Your task to perform on an android device: Open calendar and show me the third week of next month Image 0: 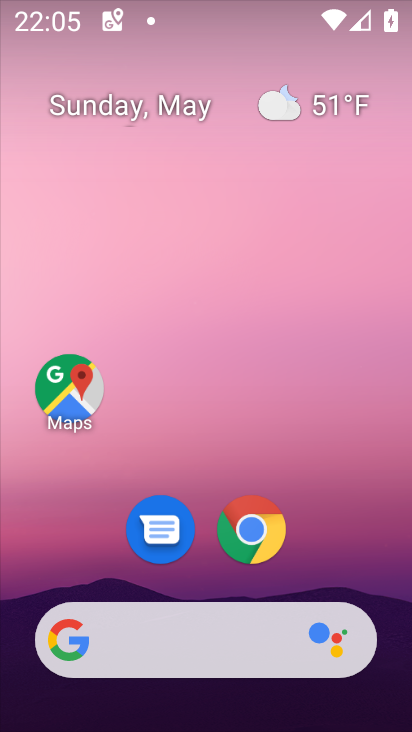
Step 0: click (358, 0)
Your task to perform on an android device: Open calendar and show me the third week of next month Image 1: 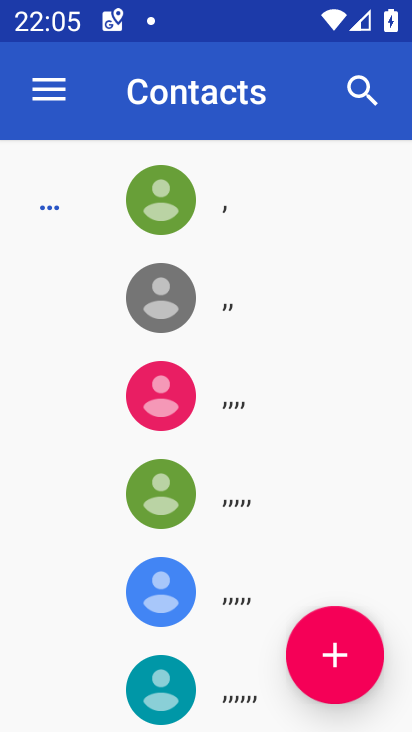
Step 1: press home button
Your task to perform on an android device: Open calendar and show me the third week of next month Image 2: 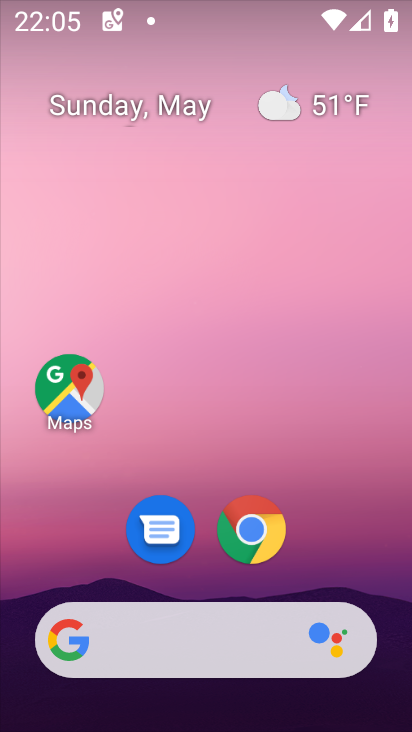
Step 2: drag from (249, 581) to (269, 8)
Your task to perform on an android device: Open calendar and show me the third week of next month Image 3: 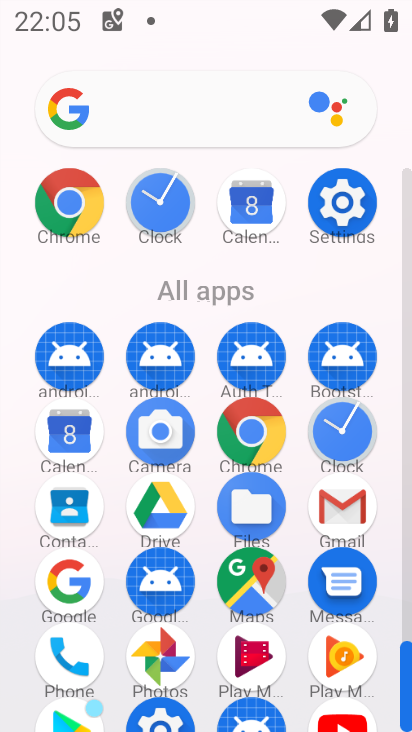
Step 3: click (79, 426)
Your task to perform on an android device: Open calendar and show me the third week of next month Image 4: 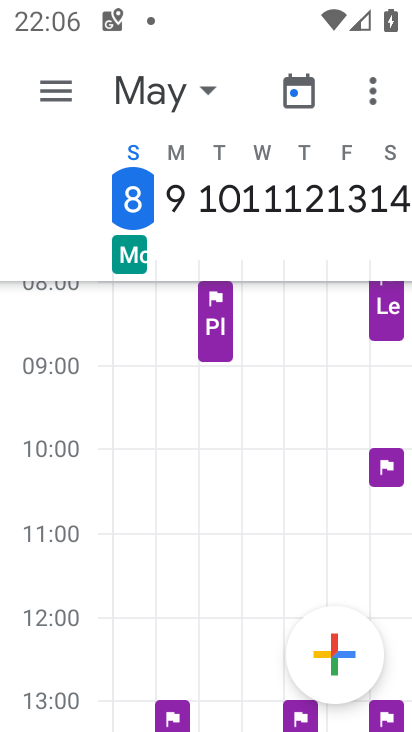
Step 4: click (64, 87)
Your task to perform on an android device: Open calendar and show me the third week of next month Image 5: 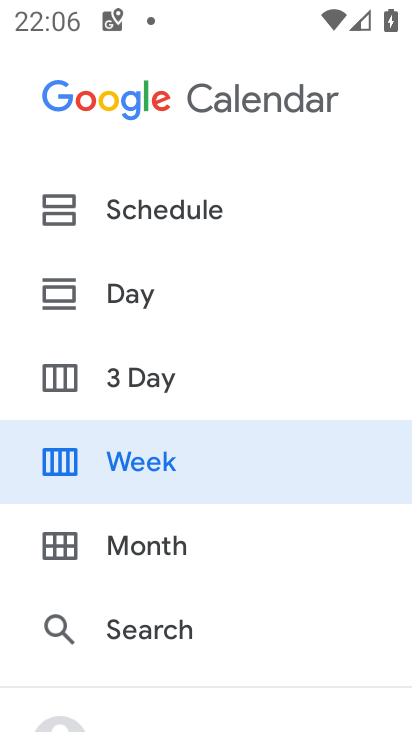
Step 5: click (213, 466)
Your task to perform on an android device: Open calendar and show me the third week of next month Image 6: 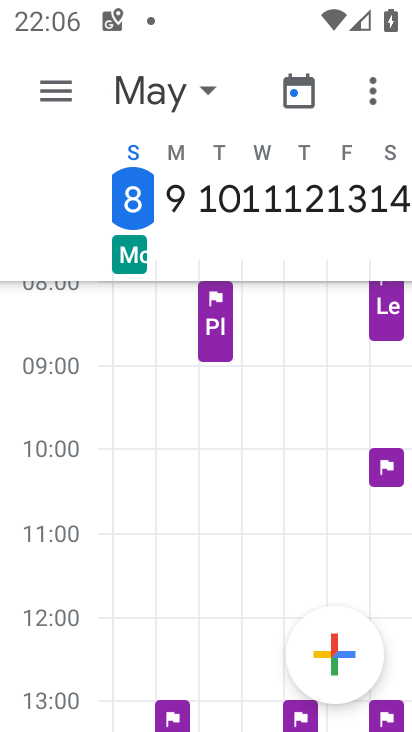
Step 6: click (207, 89)
Your task to perform on an android device: Open calendar and show me the third week of next month Image 7: 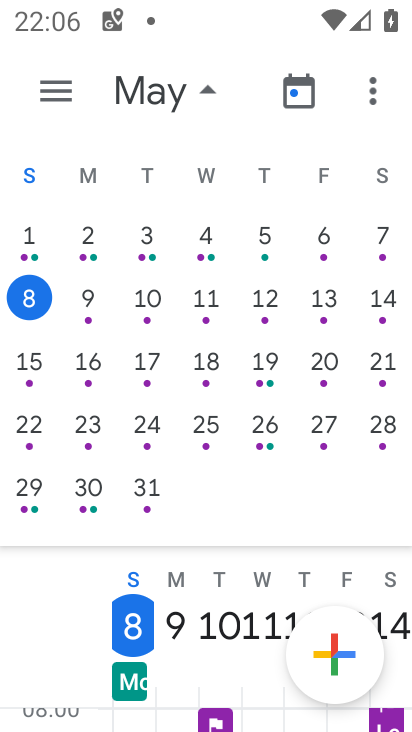
Step 7: click (265, 365)
Your task to perform on an android device: Open calendar and show me the third week of next month Image 8: 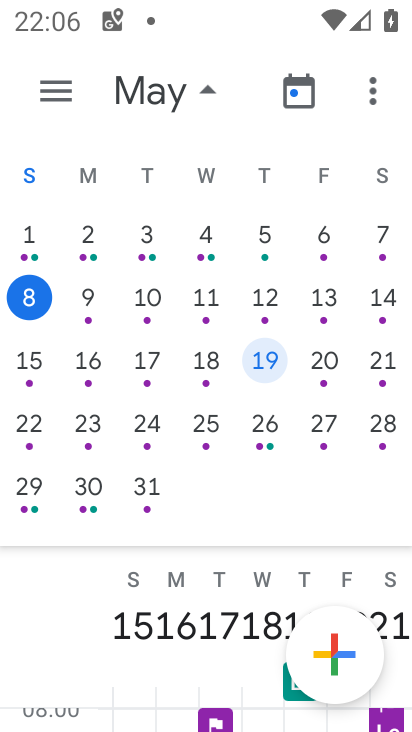
Step 8: task complete